Your task to perform on an android device: Go to notification settings Image 0: 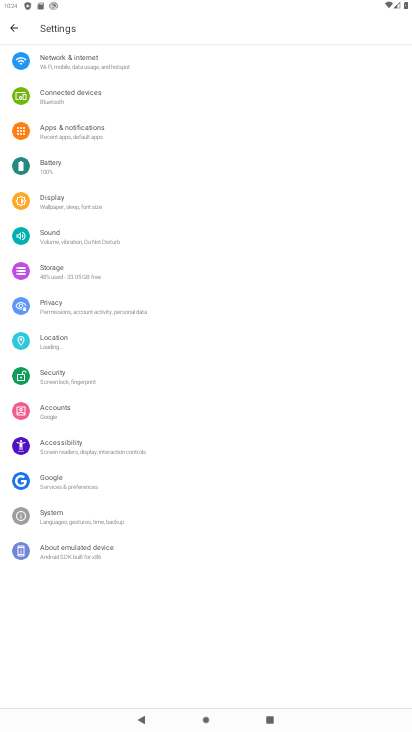
Step 0: press home button
Your task to perform on an android device: Go to notification settings Image 1: 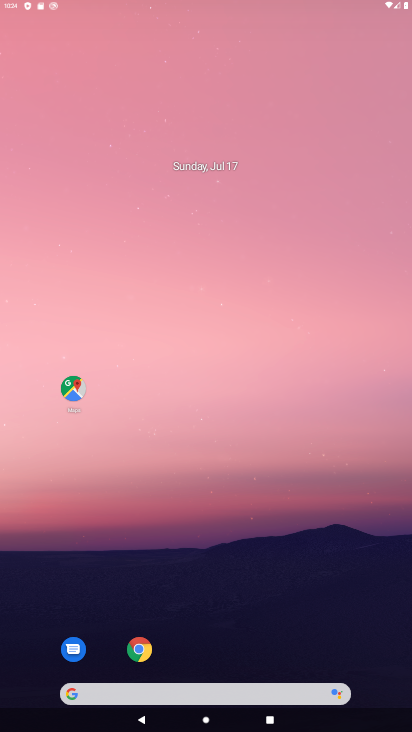
Step 1: drag from (219, 657) to (302, 131)
Your task to perform on an android device: Go to notification settings Image 2: 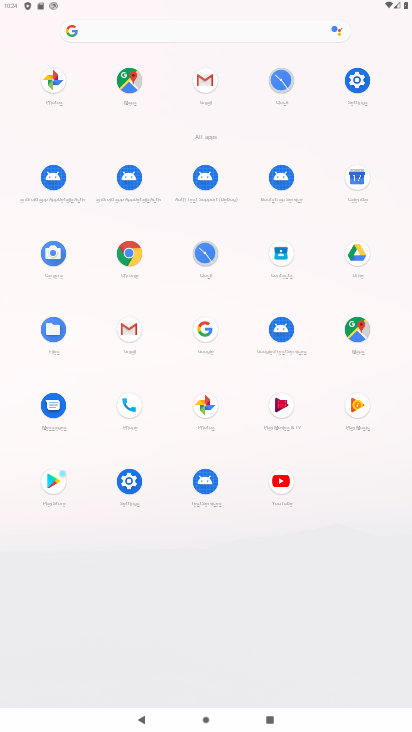
Step 2: click (353, 76)
Your task to perform on an android device: Go to notification settings Image 3: 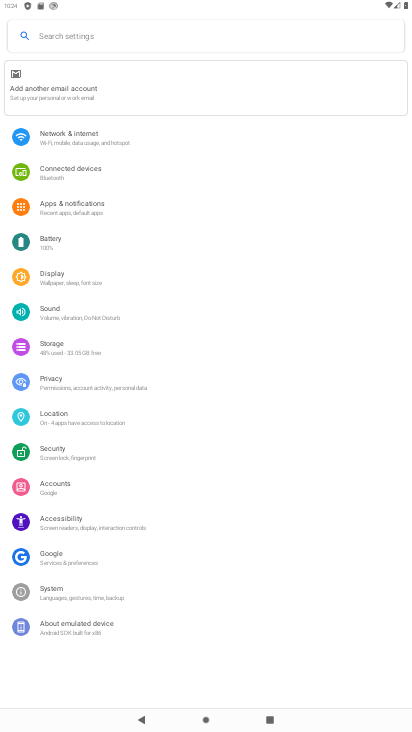
Step 3: click (81, 209)
Your task to perform on an android device: Go to notification settings Image 4: 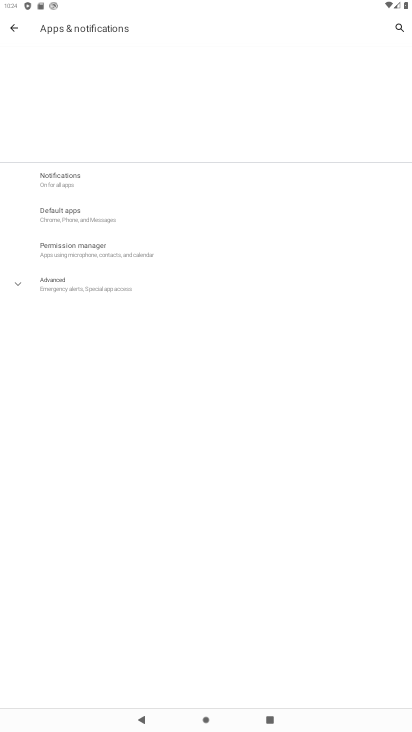
Step 4: click (88, 175)
Your task to perform on an android device: Go to notification settings Image 5: 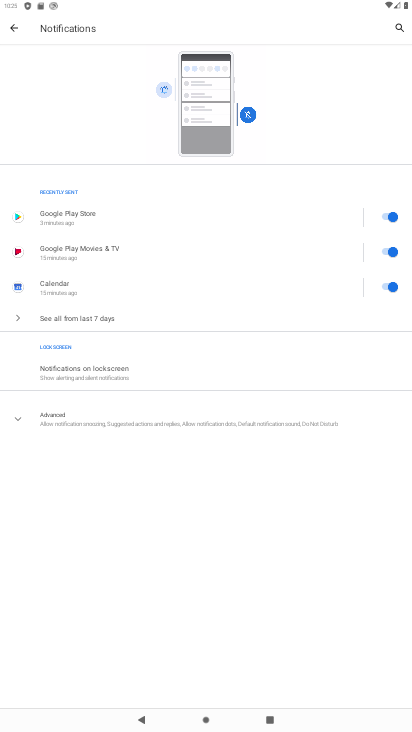
Step 5: task complete